Your task to perform on an android device: open a new tab in the chrome app Image 0: 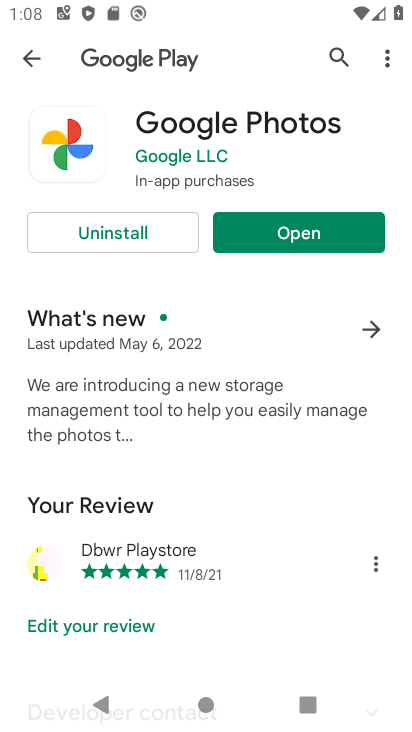
Step 0: press home button
Your task to perform on an android device: open a new tab in the chrome app Image 1: 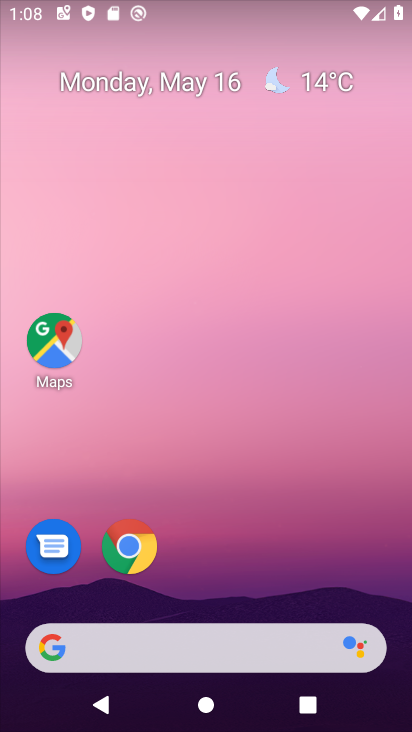
Step 1: drag from (245, 680) to (383, 307)
Your task to perform on an android device: open a new tab in the chrome app Image 2: 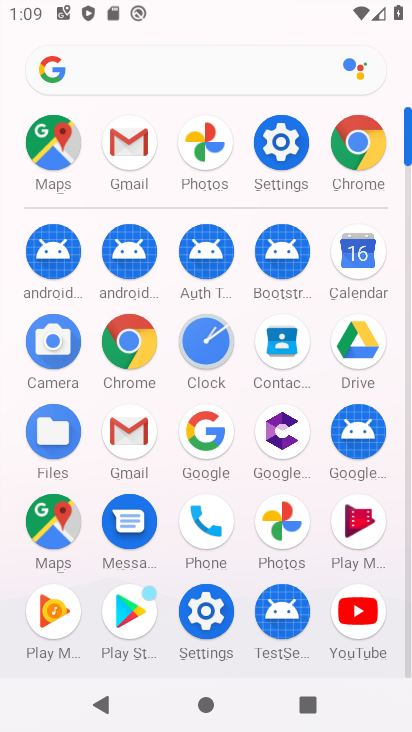
Step 2: click (145, 348)
Your task to perform on an android device: open a new tab in the chrome app Image 3: 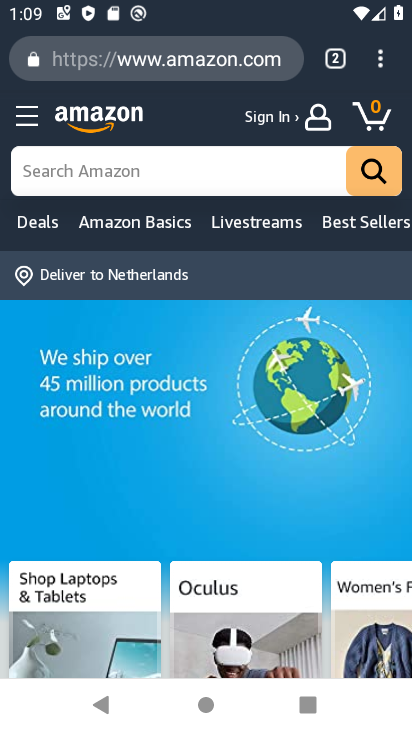
Step 3: click (373, 67)
Your task to perform on an android device: open a new tab in the chrome app Image 4: 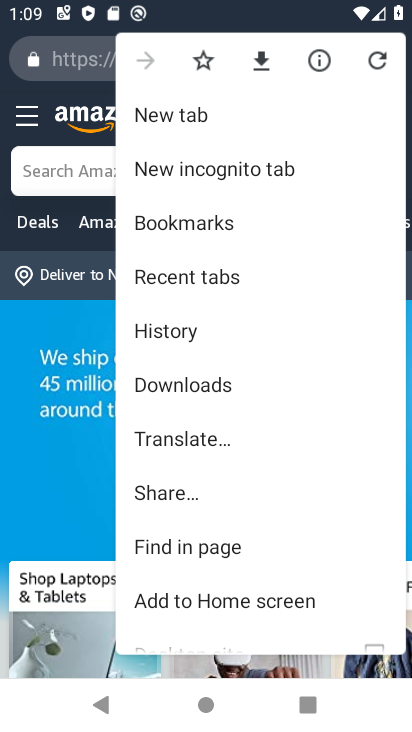
Step 4: click (211, 113)
Your task to perform on an android device: open a new tab in the chrome app Image 5: 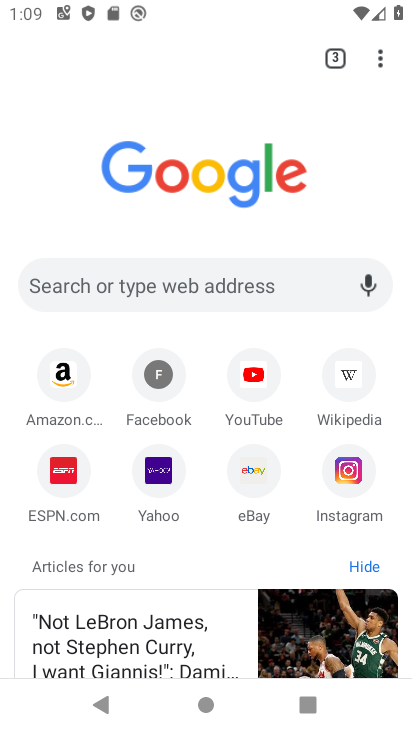
Step 5: task complete